Your task to perform on an android device: open chrome privacy settings Image 0: 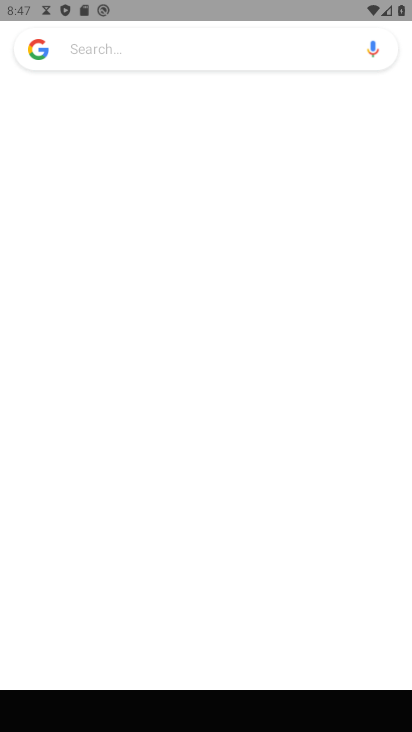
Step 0: drag from (265, 609) to (317, 238)
Your task to perform on an android device: open chrome privacy settings Image 1: 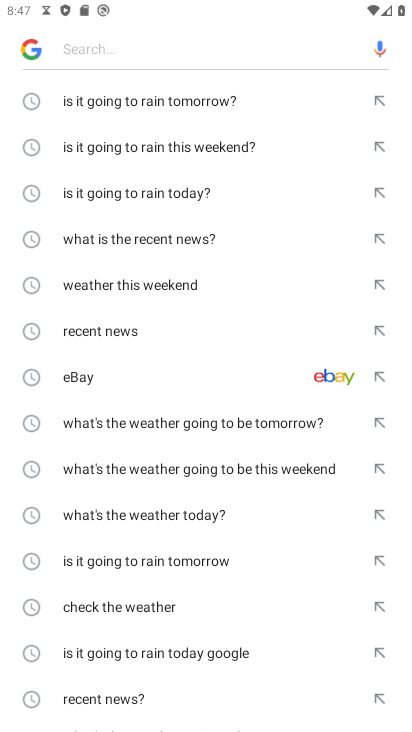
Step 1: press home button
Your task to perform on an android device: open chrome privacy settings Image 2: 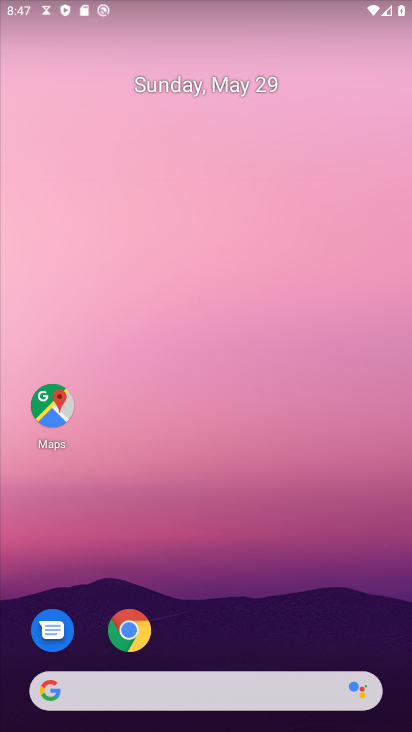
Step 2: click (139, 630)
Your task to perform on an android device: open chrome privacy settings Image 3: 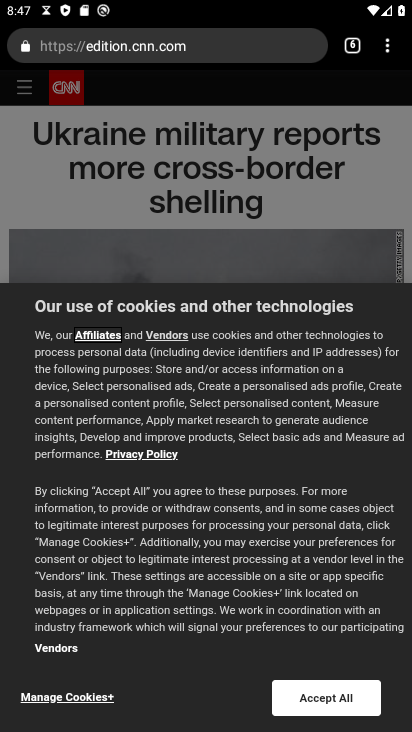
Step 3: click (388, 42)
Your task to perform on an android device: open chrome privacy settings Image 4: 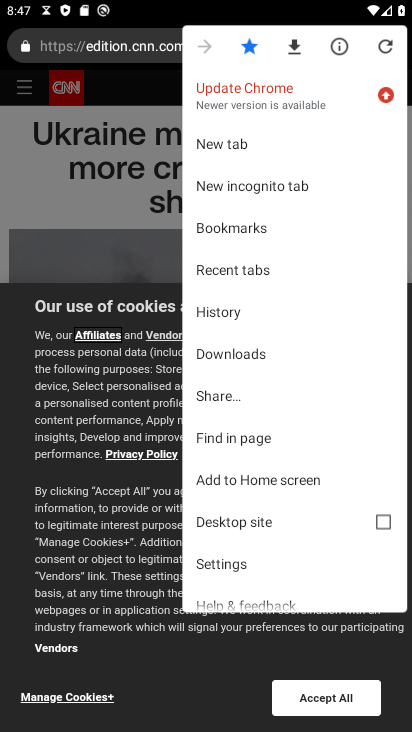
Step 4: click (249, 559)
Your task to perform on an android device: open chrome privacy settings Image 5: 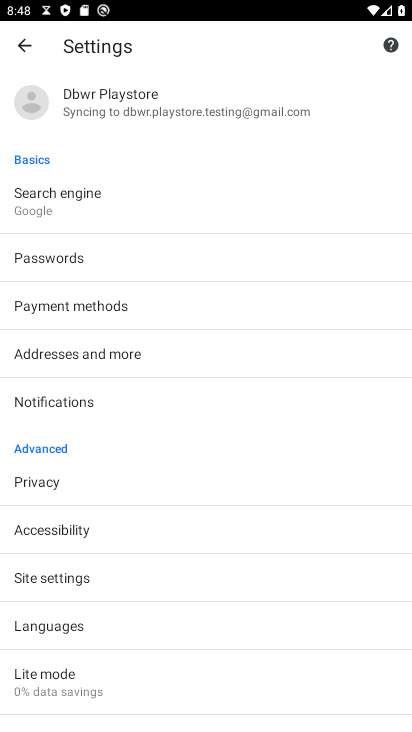
Step 5: click (66, 483)
Your task to perform on an android device: open chrome privacy settings Image 6: 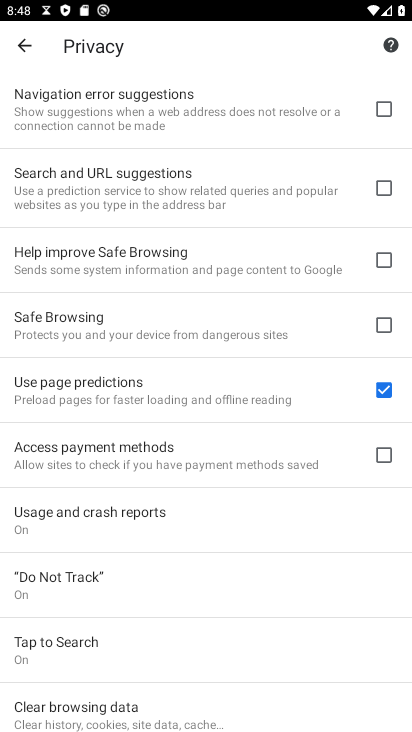
Step 6: task complete